Your task to perform on an android device: set the timer Image 0: 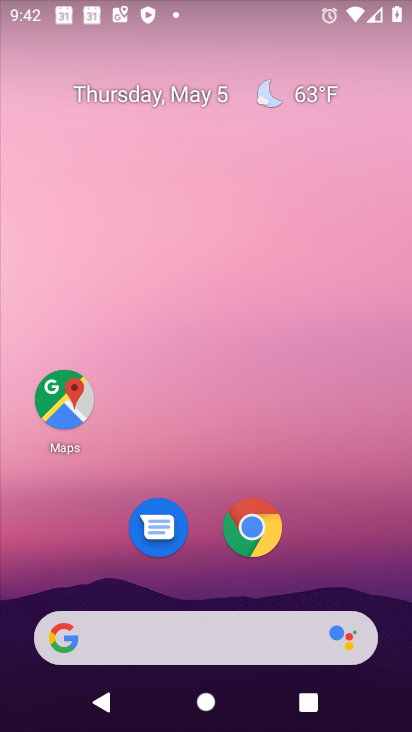
Step 0: drag from (246, 703) to (263, 67)
Your task to perform on an android device: set the timer Image 1: 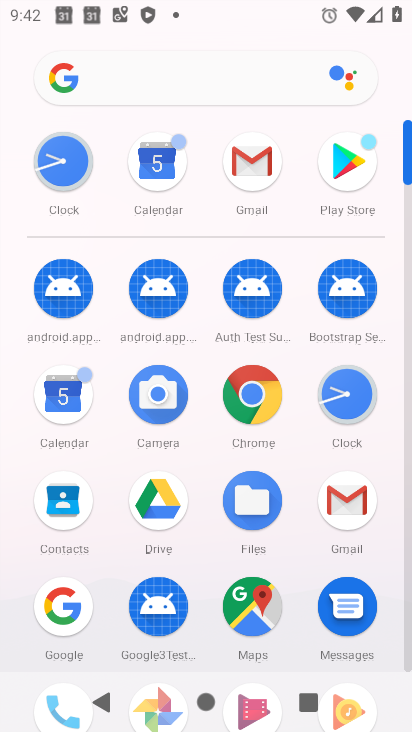
Step 1: click (73, 157)
Your task to perform on an android device: set the timer Image 2: 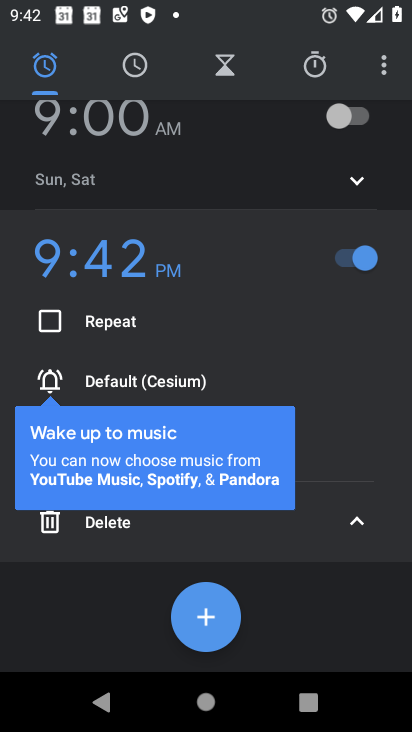
Step 2: click (224, 66)
Your task to perform on an android device: set the timer Image 3: 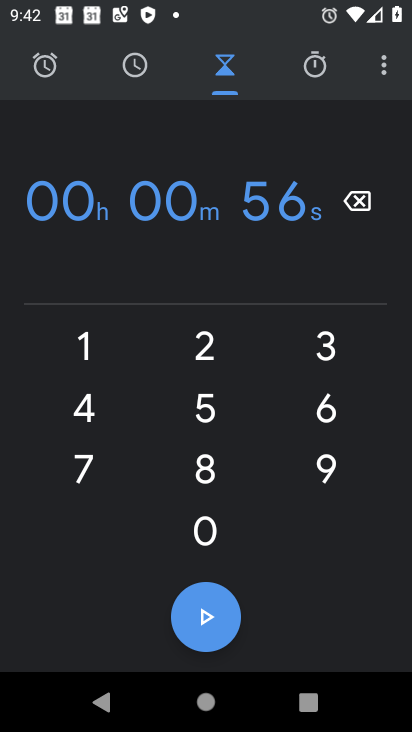
Step 3: click (204, 402)
Your task to perform on an android device: set the timer Image 4: 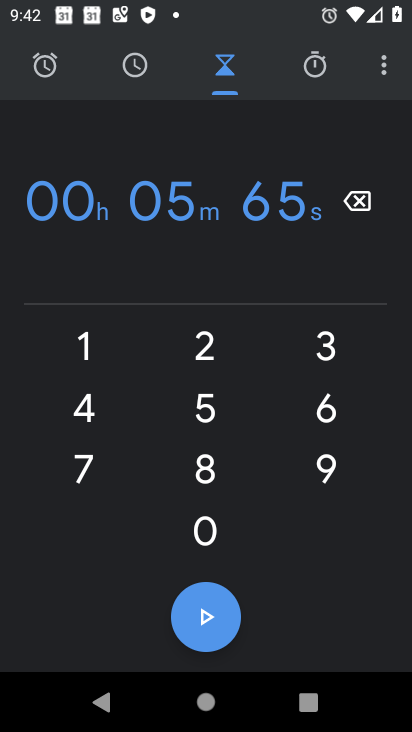
Step 4: click (333, 410)
Your task to perform on an android device: set the timer Image 5: 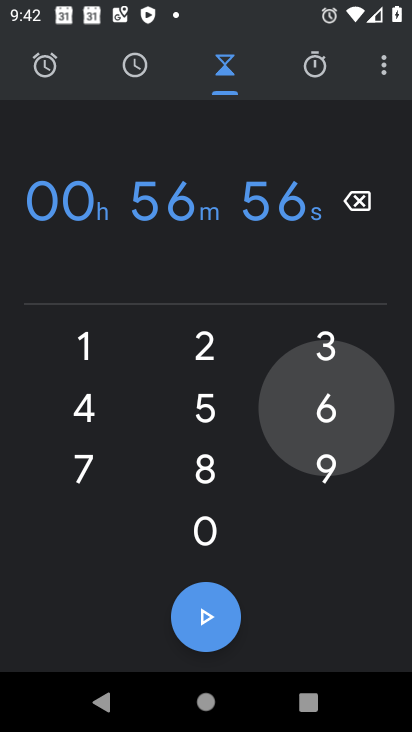
Step 5: click (327, 351)
Your task to perform on an android device: set the timer Image 6: 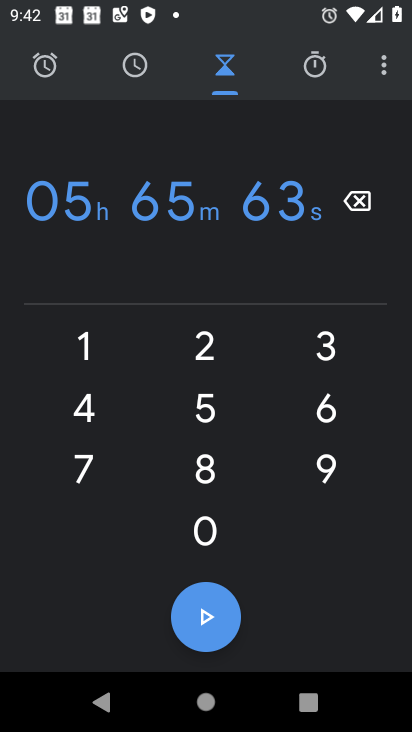
Step 6: task complete